Your task to perform on an android device: turn off location Image 0: 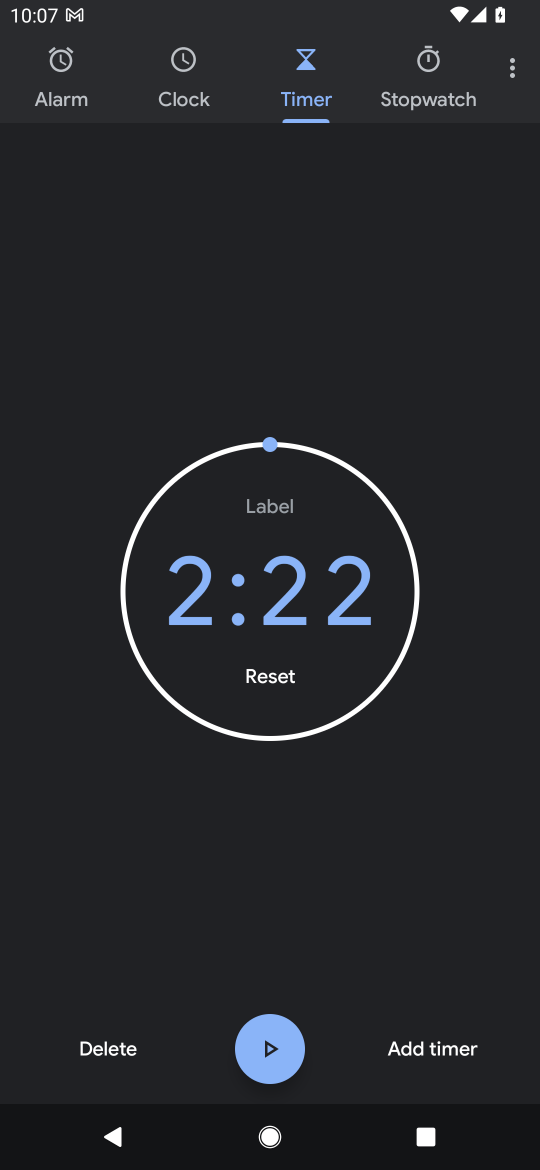
Step 0: press home button
Your task to perform on an android device: turn off location Image 1: 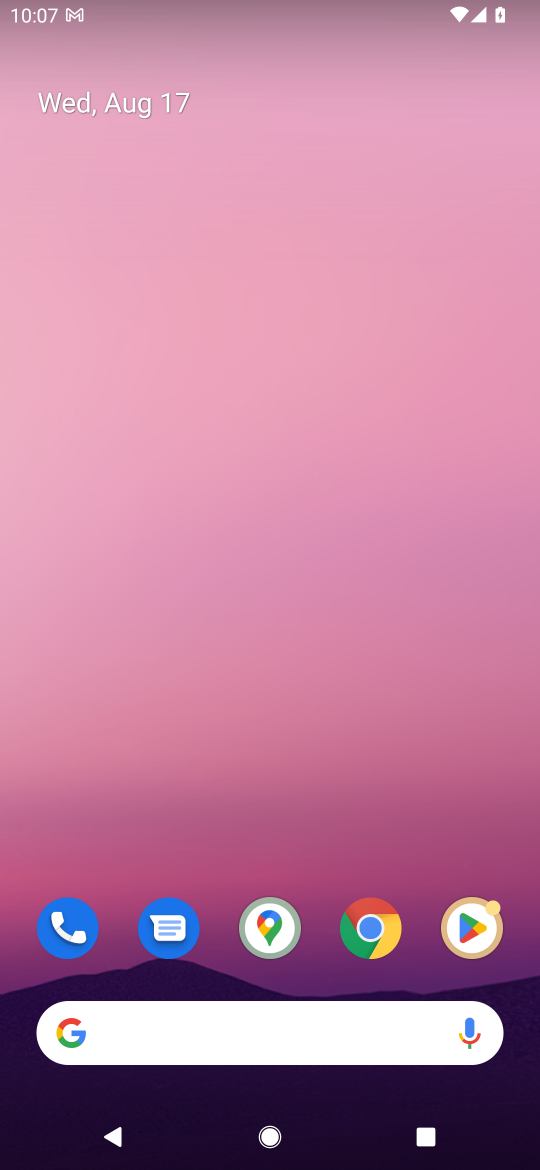
Step 1: drag from (399, 796) to (329, 234)
Your task to perform on an android device: turn off location Image 2: 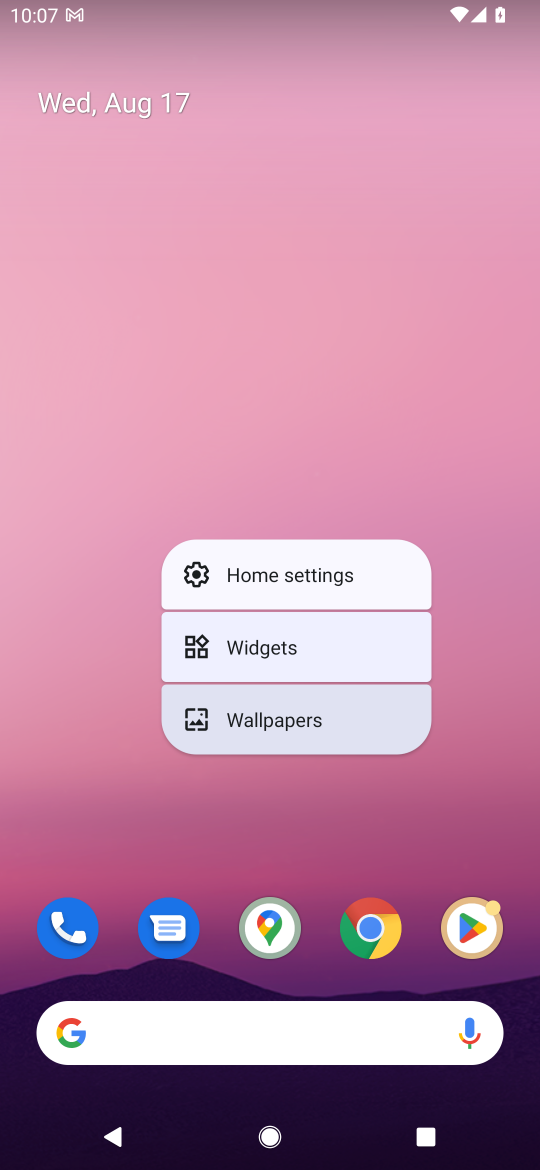
Step 2: click (448, 840)
Your task to perform on an android device: turn off location Image 3: 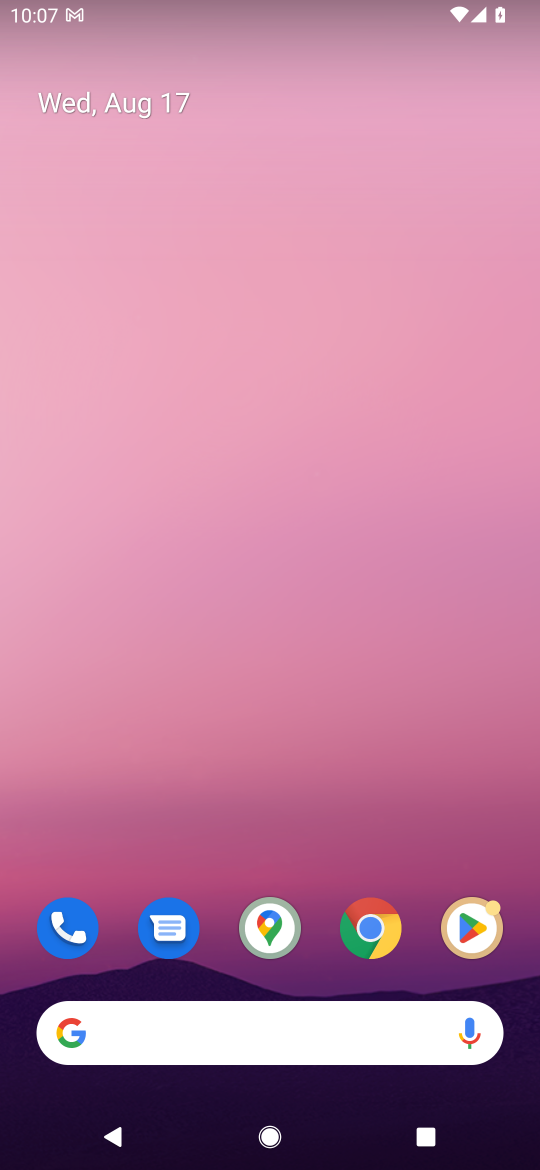
Step 3: drag from (450, 842) to (398, 247)
Your task to perform on an android device: turn off location Image 4: 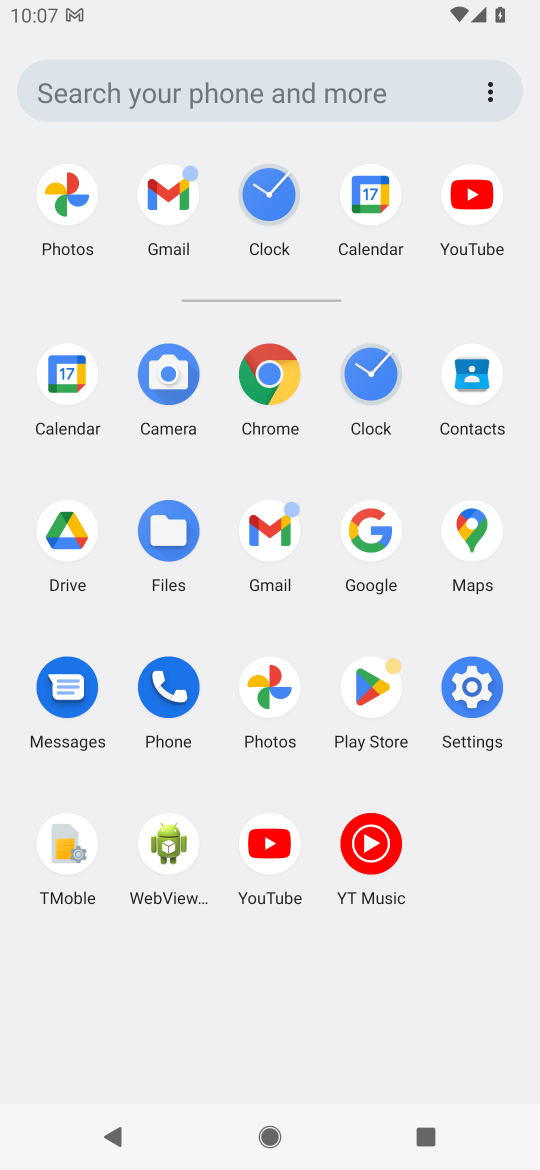
Step 4: click (473, 694)
Your task to perform on an android device: turn off location Image 5: 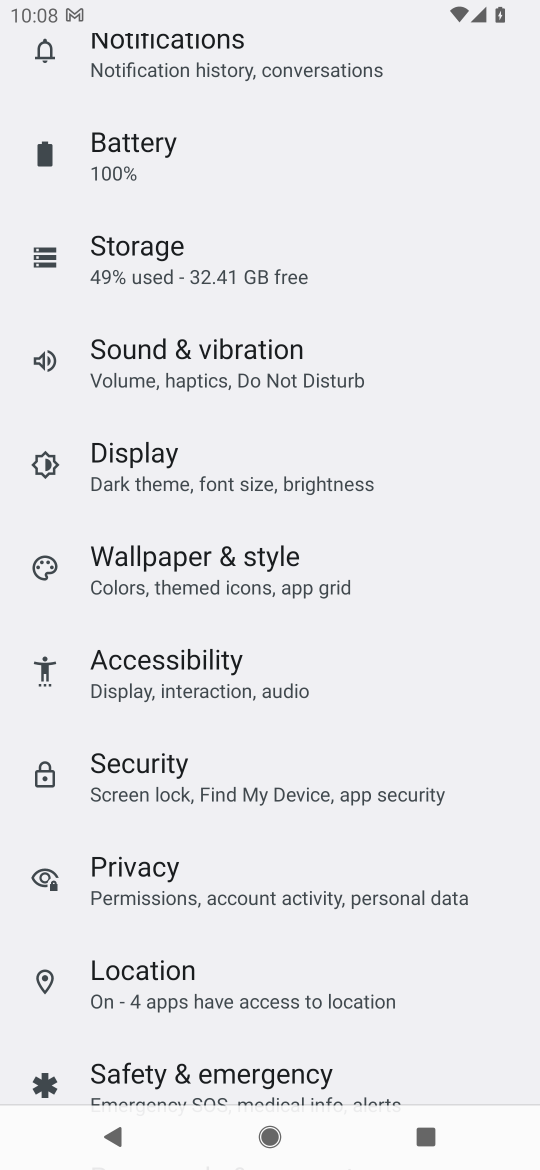
Step 5: click (210, 973)
Your task to perform on an android device: turn off location Image 6: 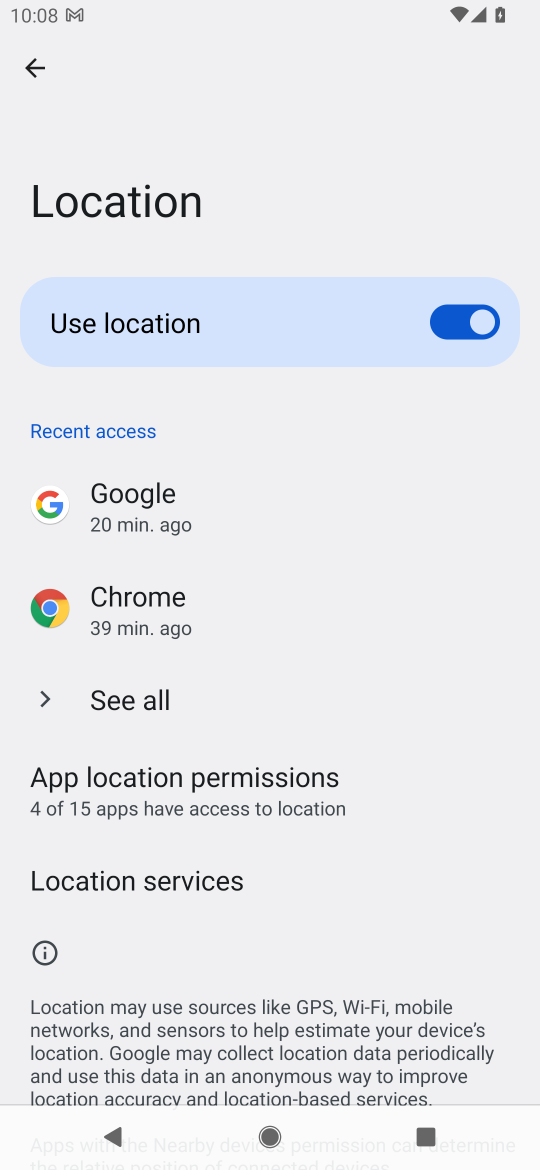
Step 6: click (461, 329)
Your task to perform on an android device: turn off location Image 7: 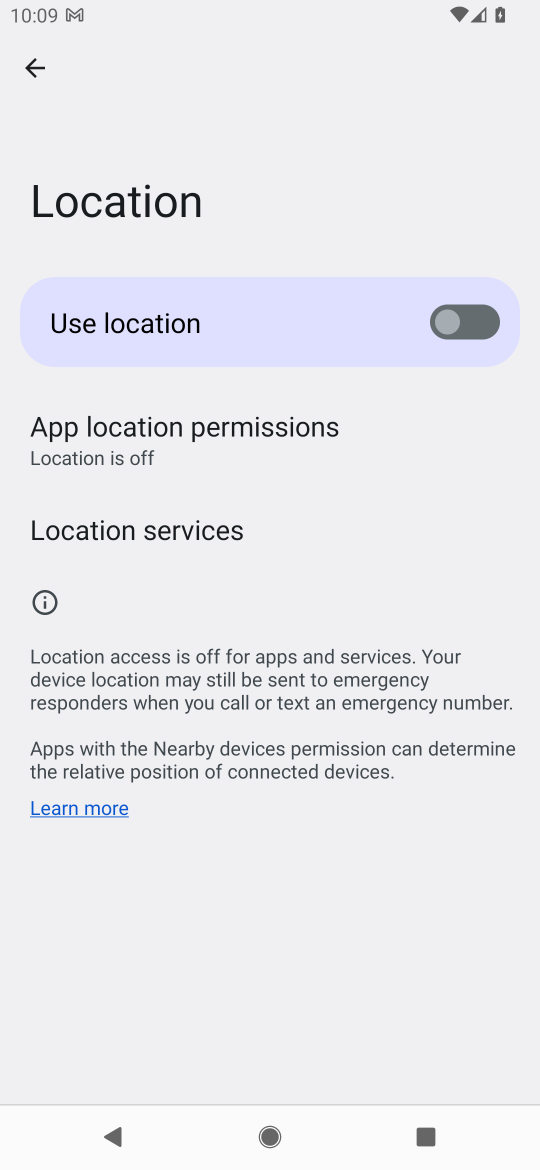
Step 7: task complete